Your task to perform on an android device: read, delete, or share a saved page in the chrome app Image 0: 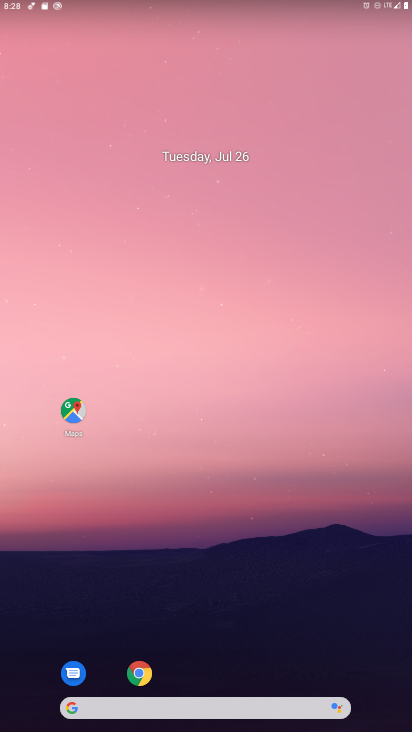
Step 0: drag from (353, 640) to (404, 266)
Your task to perform on an android device: read, delete, or share a saved page in the chrome app Image 1: 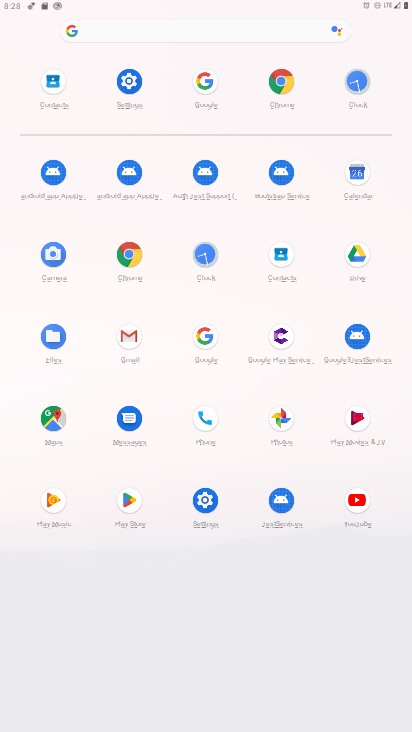
Step 1: click (119, 264)
Your task to perform on an android device: read, delete, or share a saved page in the chrome app Image 2: 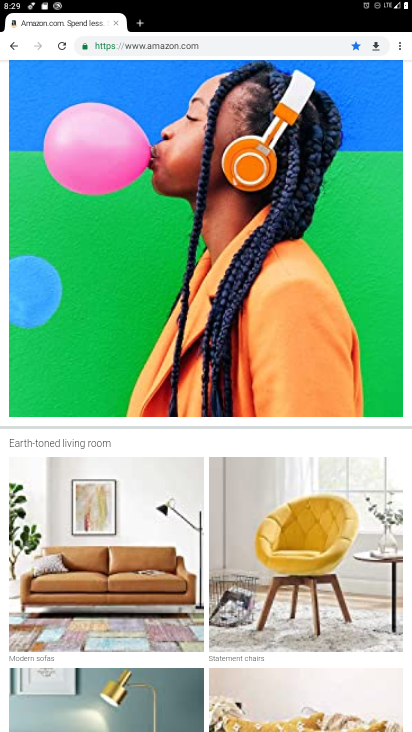
Step 2: task complete